Your task to perform on an android device: show emergency info Image 0: 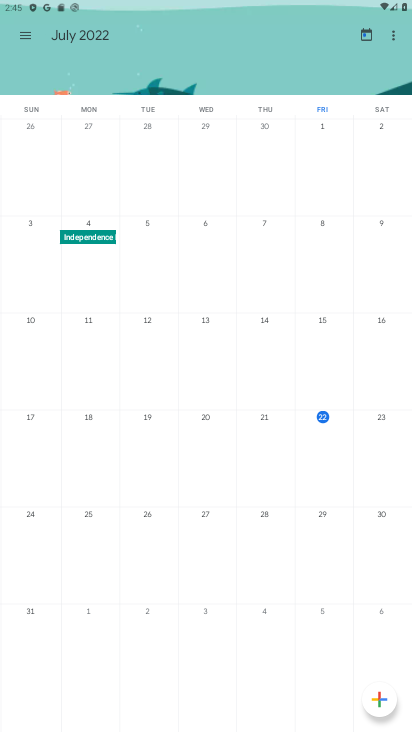
Step 0: press home button
Your task to perform on an android device: show emergency info Image 1: 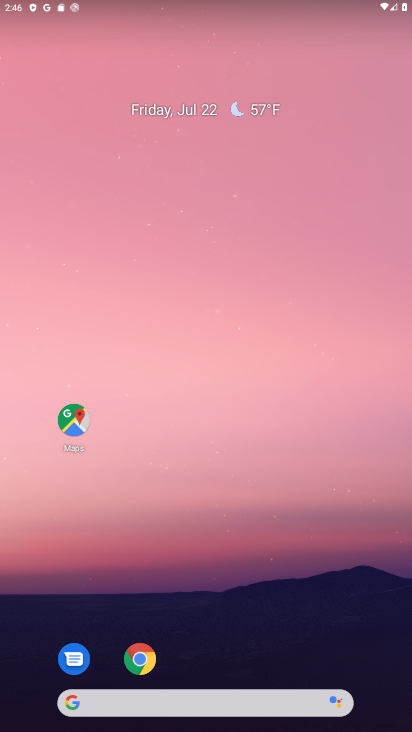
Step 1: drag from (302, 640) to (338, 4)
Your task to perform on an android device: show emergency info Image 2: 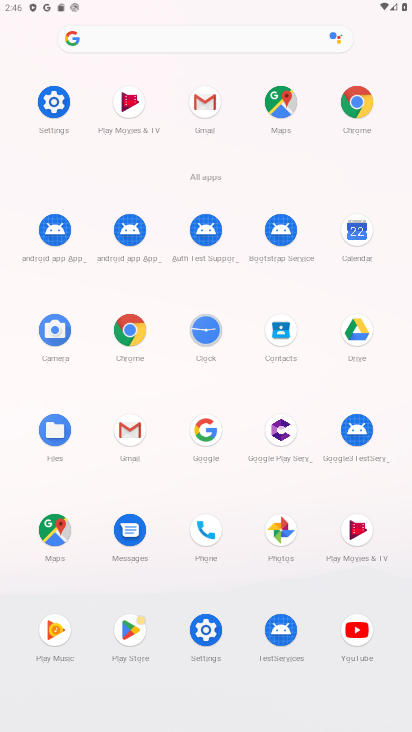
Step 2: click (205, 627)
Your task to perform on an android device: show emergency info Image 3: 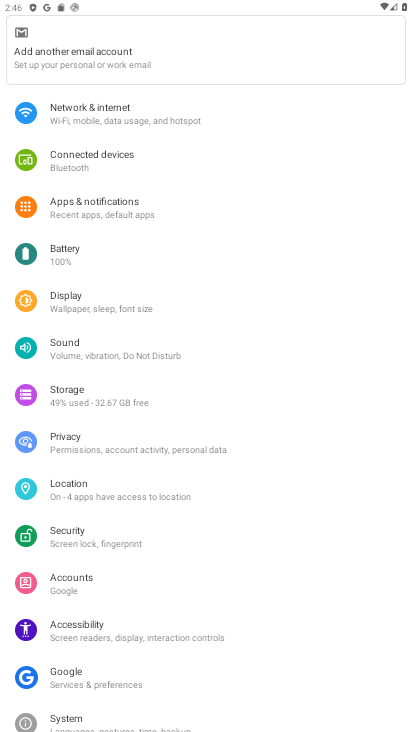
Step 3: drag from (173, 647) to (156, 206)
Your task to perform on an android device: show emergency info Image 4: 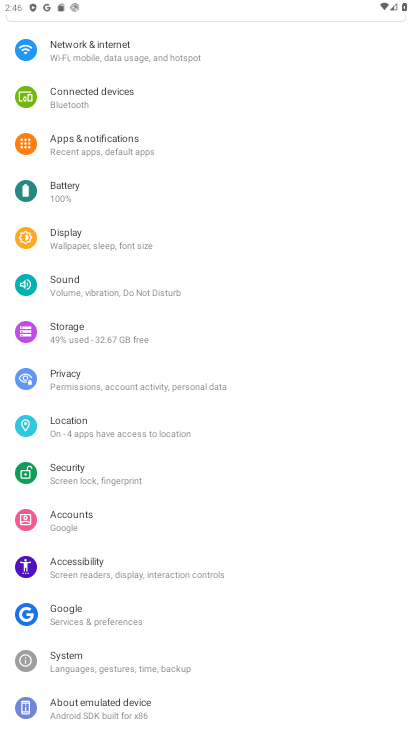
Step 4: click (116, 713)
Your task to perform on an android device: show emergency info Image 5: 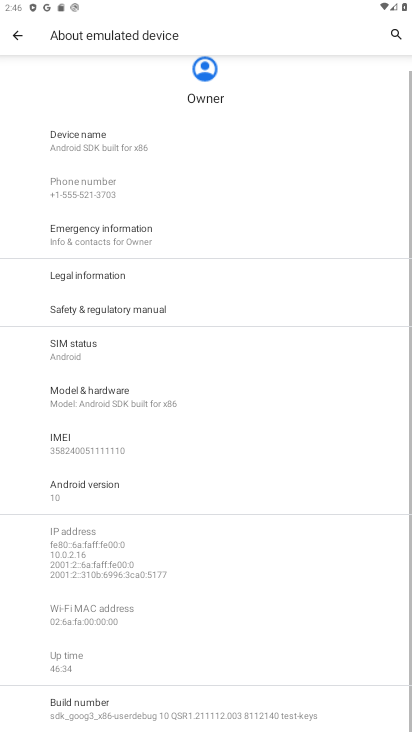
Step 5: click (157, 232)
Your task to perform on an android device: show emergency info Image 6: 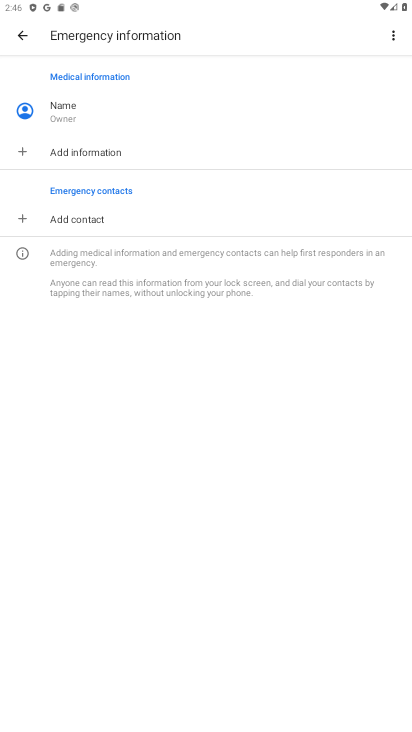
Step 6: task complete